Your task to perform on an android device: turn on showing notifications on the lock screen Image 0: 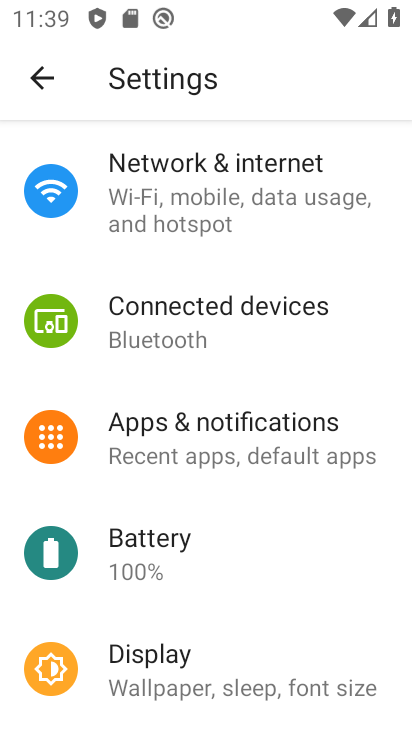
Step 0: click (190, 453)
Your task to perform on an android device: turn on showing notifications on the lock screen Image 1: 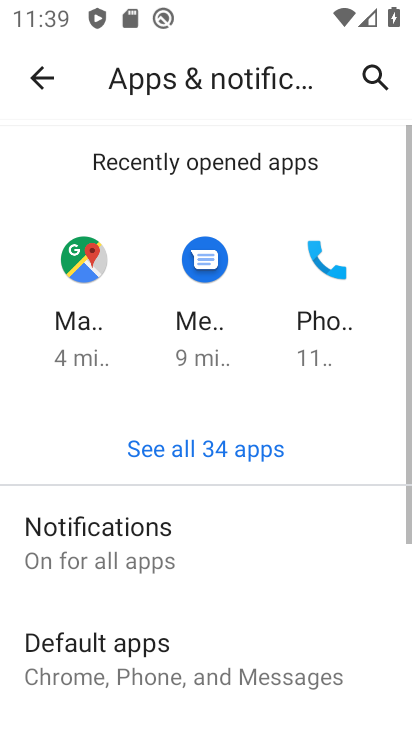
Step 1: drag from (160, 593) to (126, 237)
Your task to perform on an android device: turn on showing notifications on the lock screen Image 2: 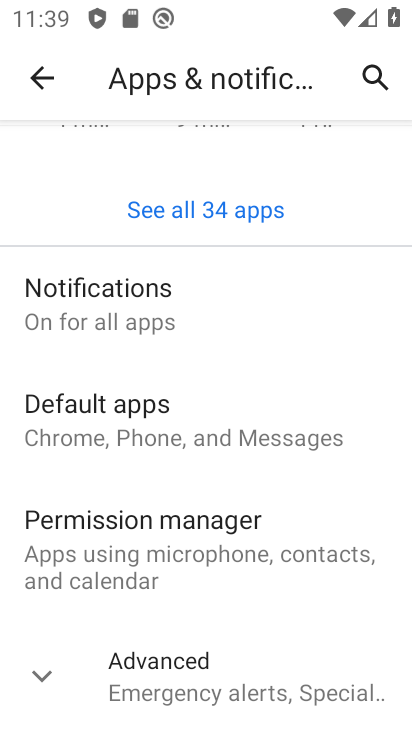
Step 2: click (127, 683)
Your task to perform on an android device: turn on showing notifications on the lock screen Image 3: 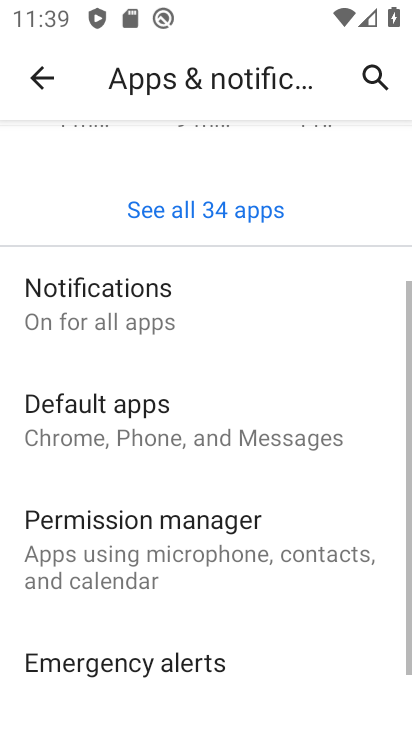
Step 3: drag from (127, 683) to (145, 285)
Your task to perform on an android device: turn on showing notifications on the lock screen Image 4: 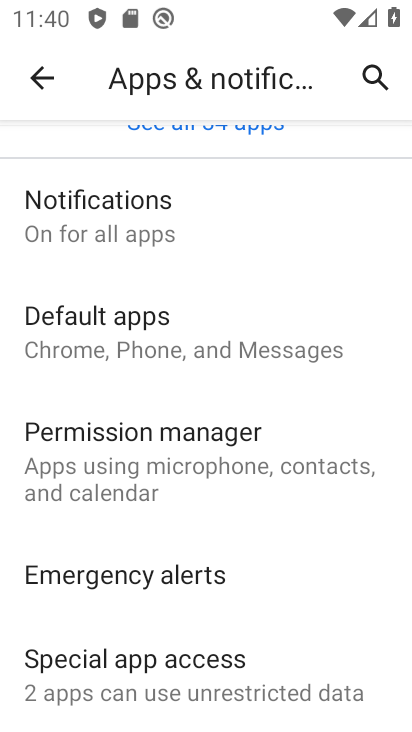
Step 4: click (170, 202)
Your task to perform on an android device: turn on showing notifications on the lock screen Image 5: 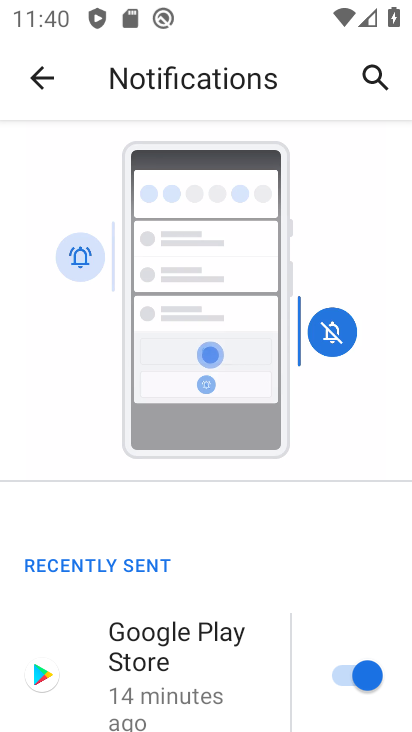
Step 5: drag from (128, 547) to (175, 284)
Your task to perform on an android device: turn on showing notifications on the lock screen Image 6: 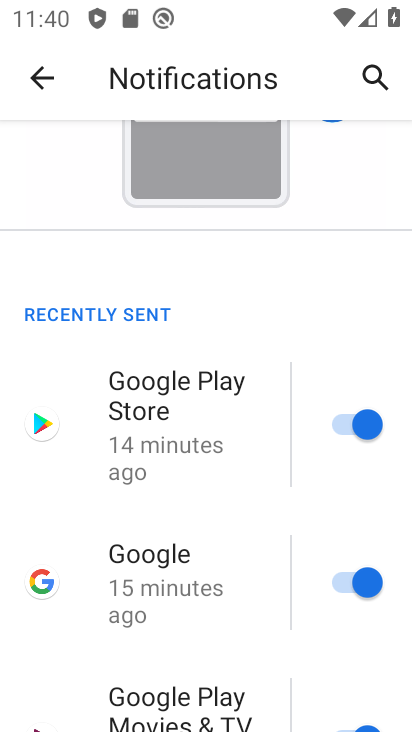
Step 6: drag from (116, 456) to (83, 88)
Your task to perform on an android device: turn on showing notifications on the lock screen Image 7: 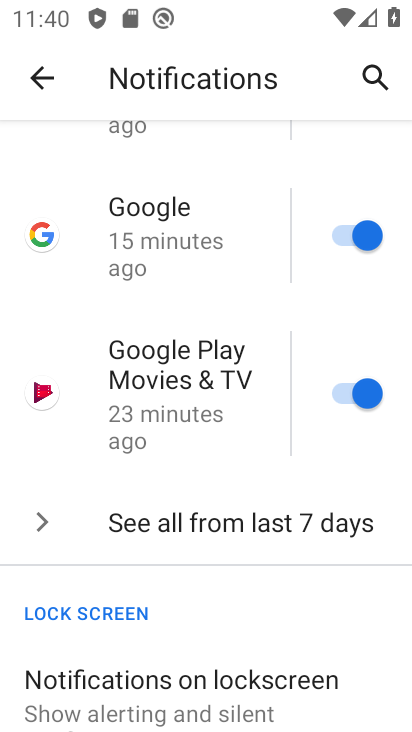
Step 7: drag from (80, 535) to (123, 360)
Your task to perform on an android device: turn on showing notifications on the lock screen Image 8: 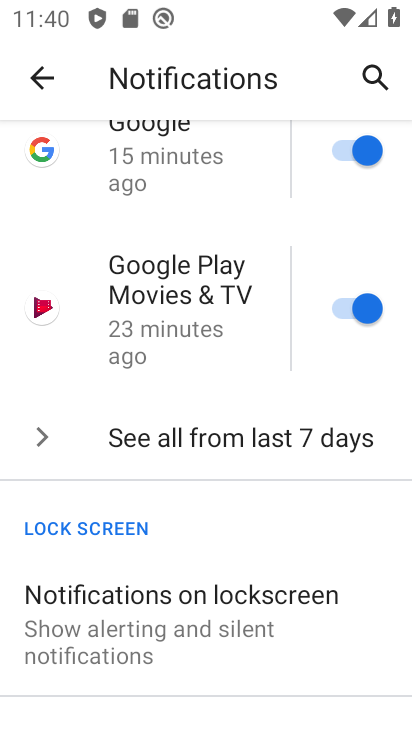
Step 8: drag from (101, 580) to (87, 324)
Your task to perform on an android device: turn on showing notifications on the lock screen Image 9: 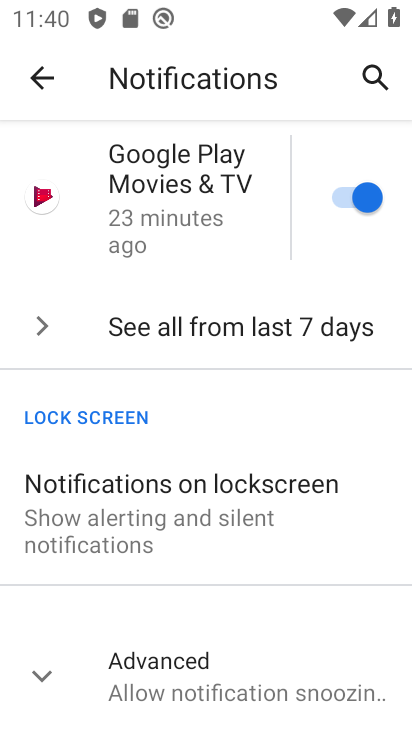
Step 9: click (118, 473)
Your task to perform on an android device: turn on showing notifications on the lock screen Image 10: 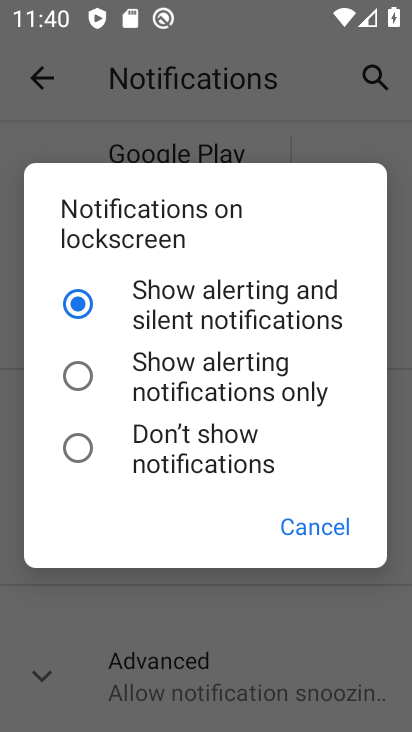
Step 10: click (114, 404)
Your task to perform on an android device: turn on showing notifications on the lock screen Image 11: 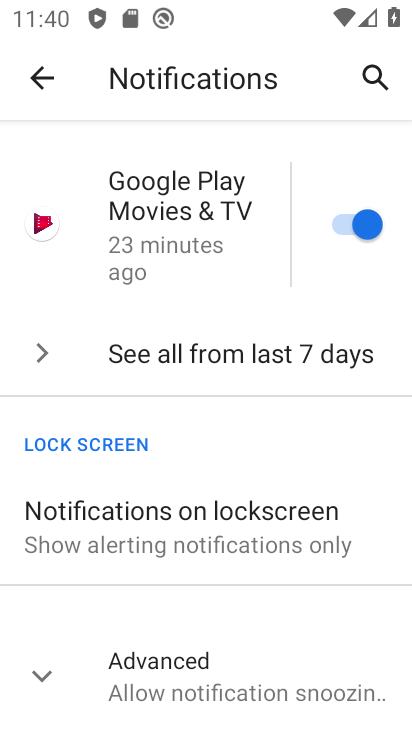
Step 11: task complete